Your task to perform on an android device: move an email to a new category in the gmail app Image 0: 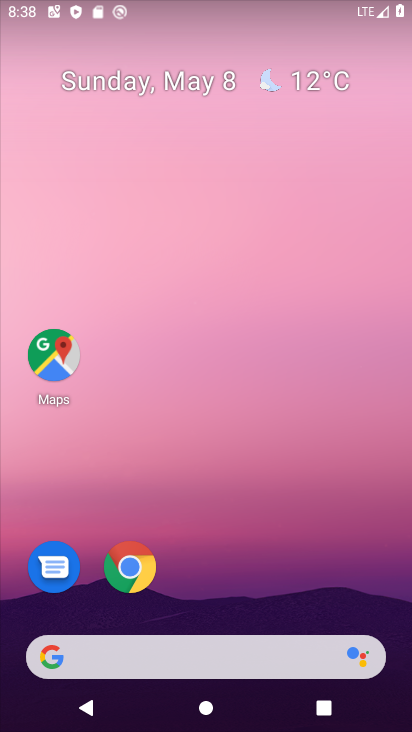
Step 0: drag from (194, 644) to (138, 18)
Your task to perform on an android device: move an email to a new category in the gmail app Image 1: 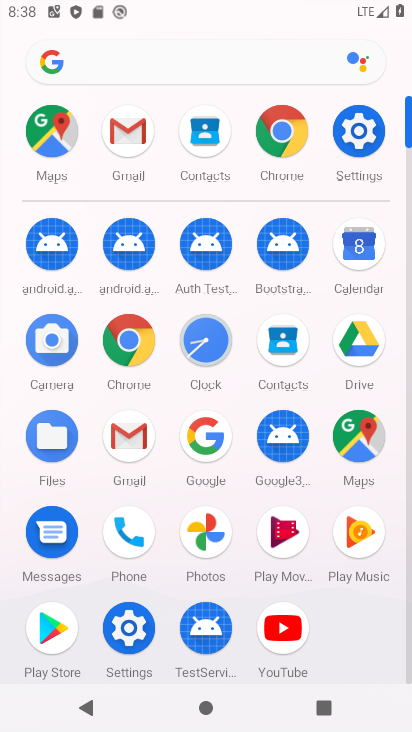
Step 1: click (137, 129)
Your task to perform on an android device: move an email to a new category in the gmail app Image 2: 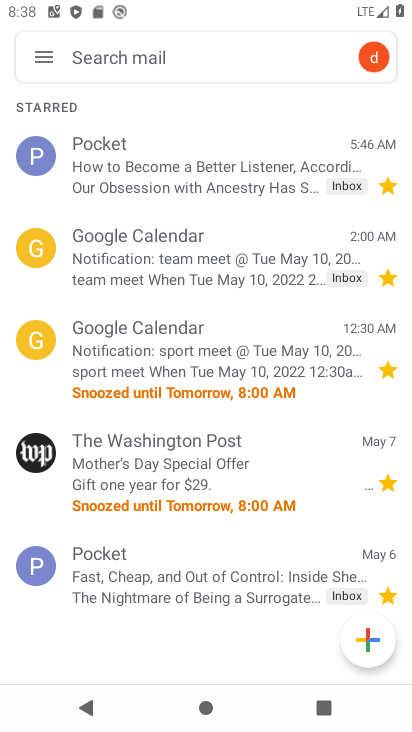
Step 2: click (35, 165)
Your task to perform on an android device: move an email to a new category in the gmail app Image 3: 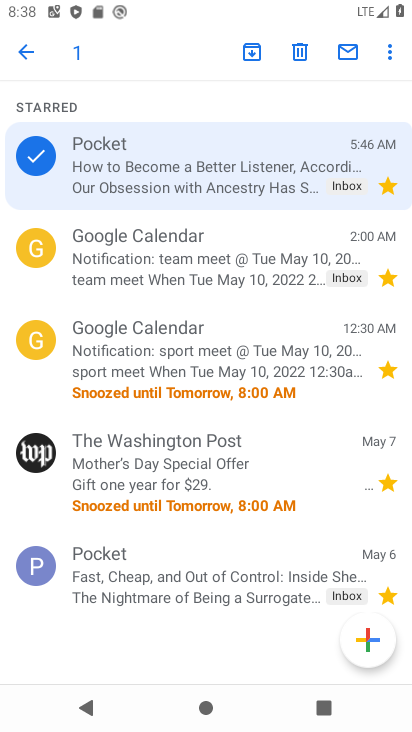
Step 3: click (386, 53)
Your task to perform on an android device: move an email to a new category in the gmail app Image 4: 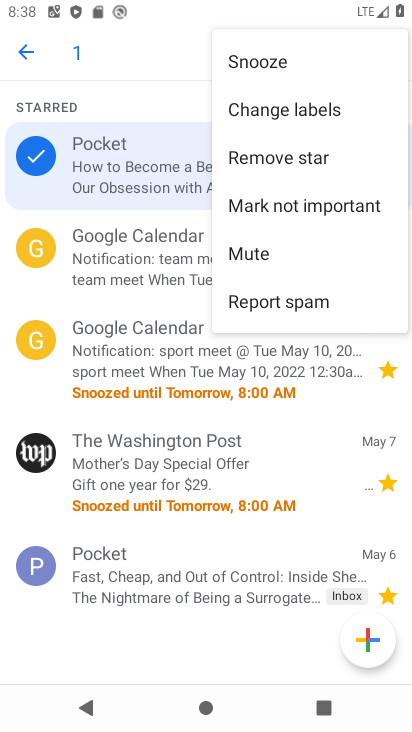
Step 4: click (283, 115)
Your task to perform on an android device: move an email to a new category in the gmail app Image 5: 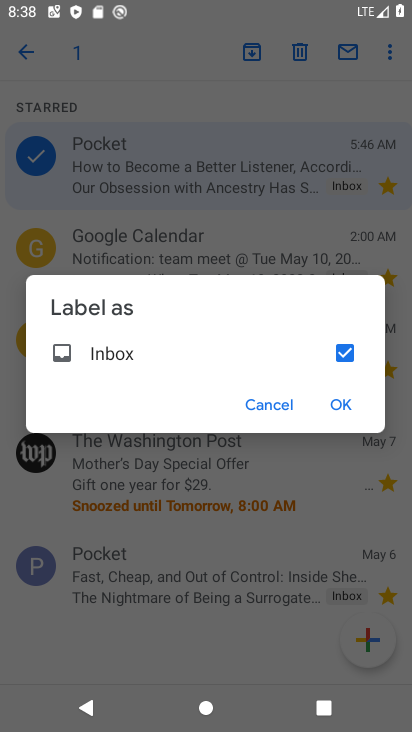
Step 5: click (355, 350)
Your task to perform on an android device: move an email to a new category in the gmail app Image 6: 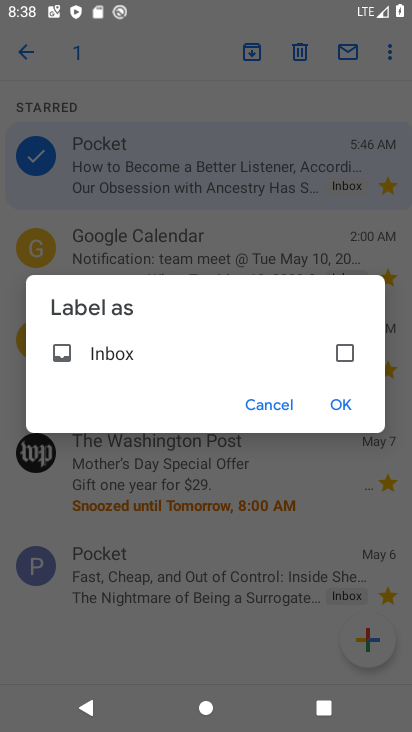
Step 6: click (338, 418)
Your task to perform on an android device: move an email to a new category in the gmail app Image 7: 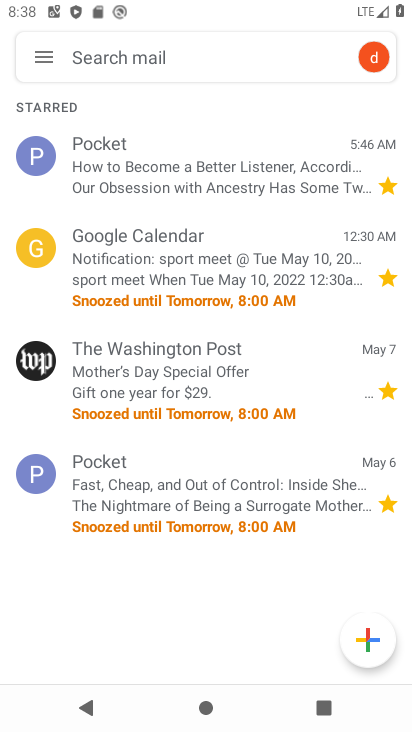
Step 7: task complete